Your task to perform on an android device: turn on airplane mode Image 0: 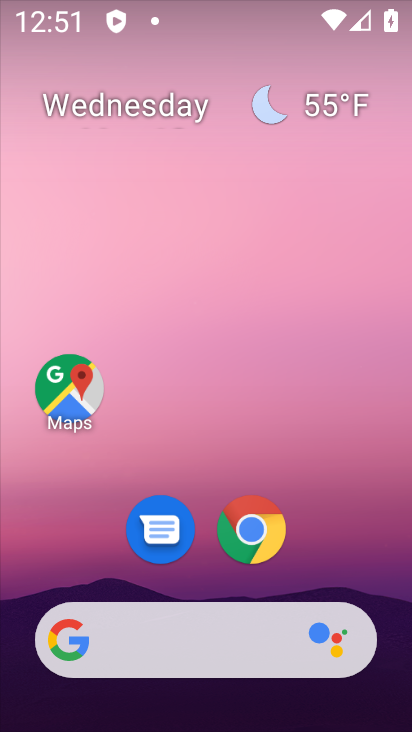
Step 0: drag from (223, 725) to (217, 157)
Your task to perform on an android device: turn on airplane mode Image 1: 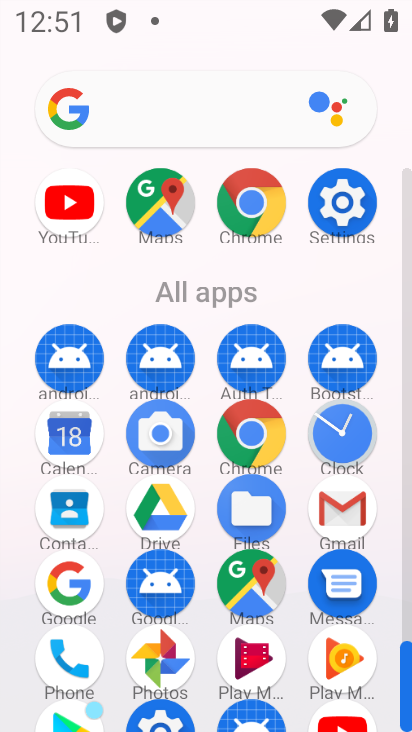
Step 1: click (348, 198)
Your task to perform on an android device: turn on airplane mode Image 2: 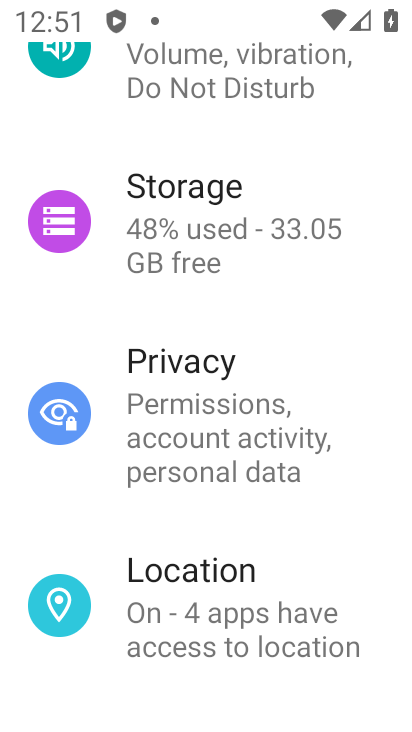
Step 2: drag from (330, 122) to (325, 490)
Your task to perform on an android device: turn on airplane mode Image 3: 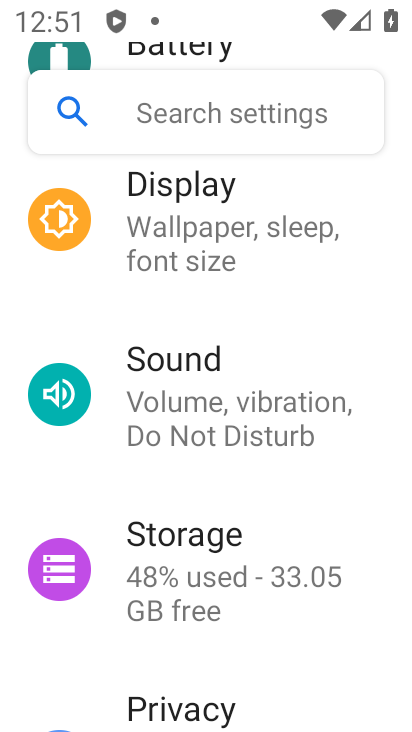
Step 3: drag from (260, 182) to (260, 582)
Your task to perform on an android device: turn on airplane mode Image 4: 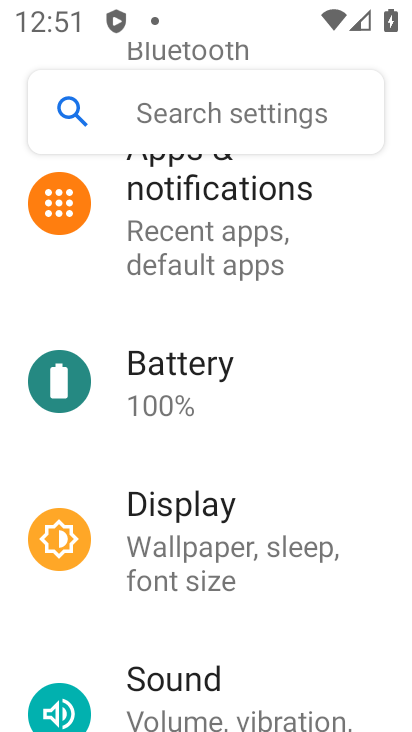
Step 4: drag from (251, 181) to (245, 554)
Your task to perform on an android device: turn on airplane mode Image 5: 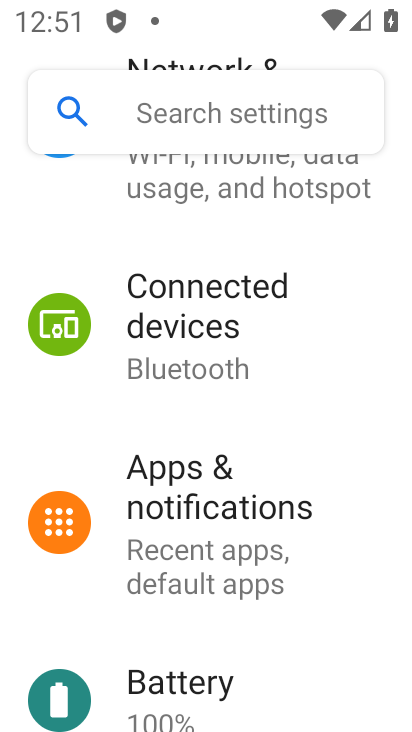
Step 5: drag from (236, 227) to (237, 631)
Your task to perform on an android device: turn on airplane mode Image 6: 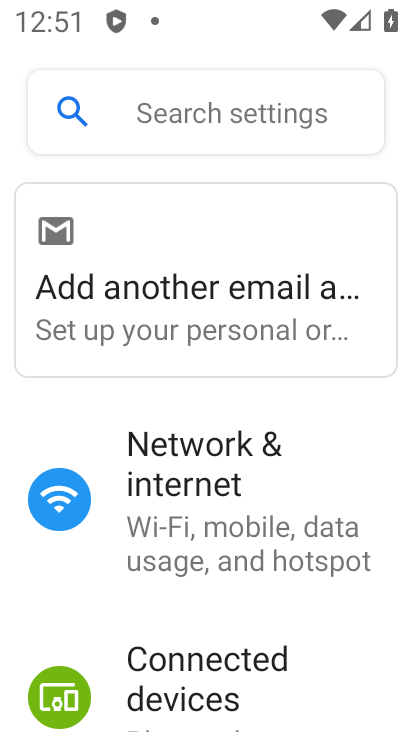
Step 6: click (178, 470)
Your task to perform on an android device: turn on airplane mode Image 7: 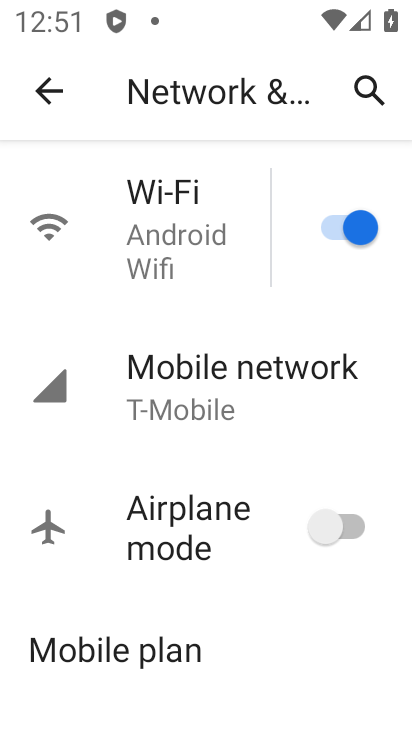
Step 7: click (347, 522)
Your task to perform on an android device: turn on airplane mode Image 8: 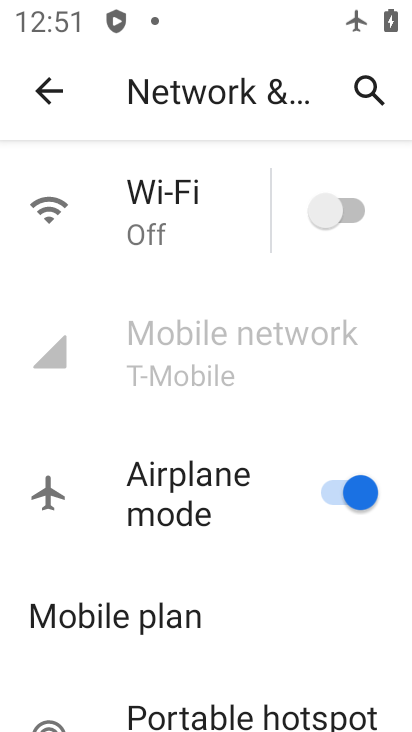
Step 8: task complete